Your task to perform on an android device: toggle pop-ups in chrome Image 0: 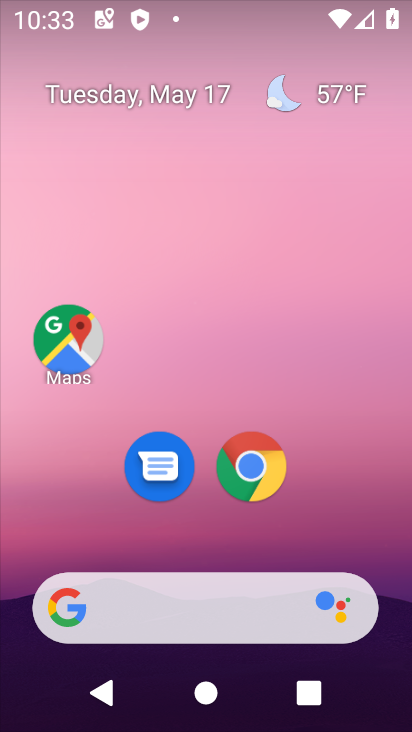
Step 0: press home button
Your task to perform on an android device: toggle pop-ups in chrome Image 1: 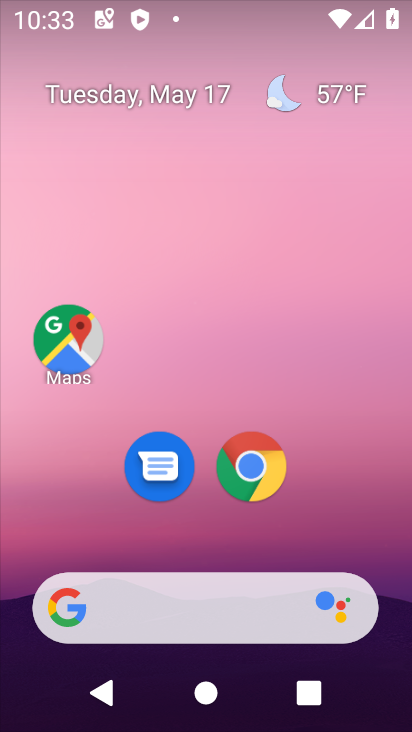
Step 1: drag from (258, 644) to (177, 197)
Your task to perform on an android device: toggle pop-ups in chrome Image 2: 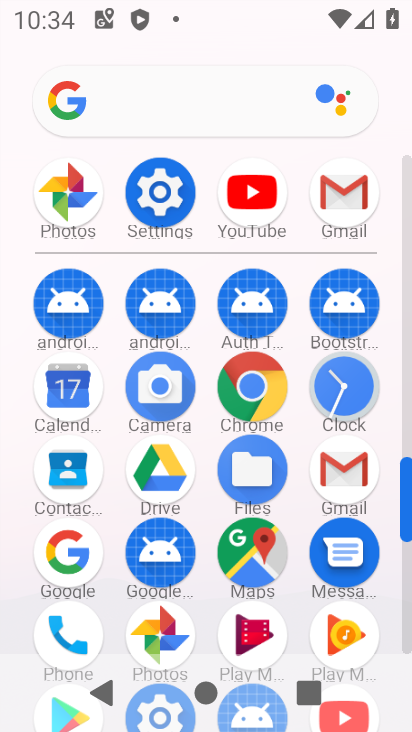
Step 2: click (266, 390)
Your task to perform on an android device: toggle pop-ups in chrome Image 3: 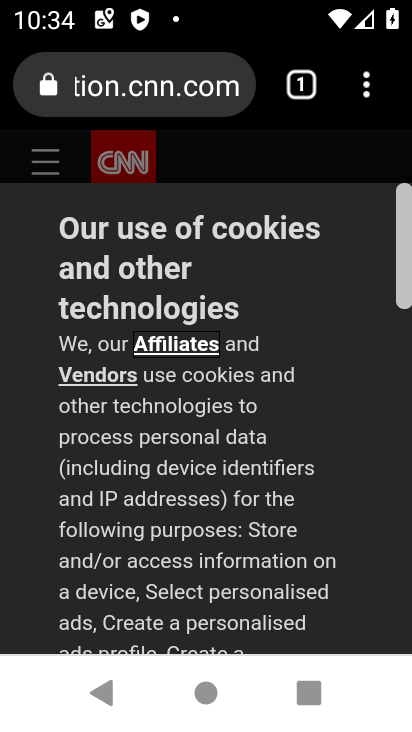
Step 3: click (363, 101)
Your task to perform on an android device: toggle pop-ups in chrome Image 4: 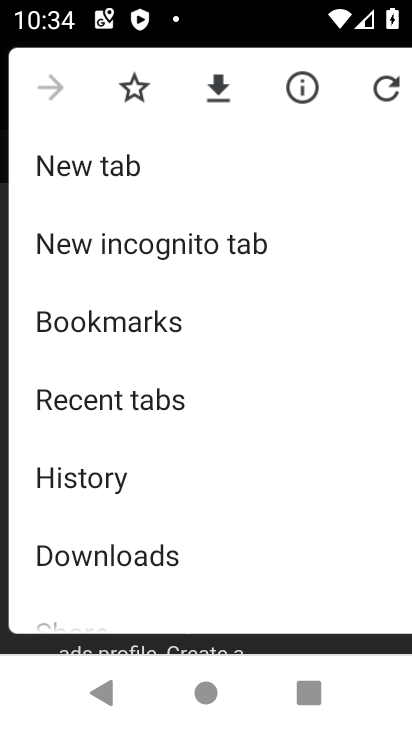
Step 4: drag from (182, 443) to (204, 238)
Your task to perform on an android device: toggle pop-ups in chrome Image 5: 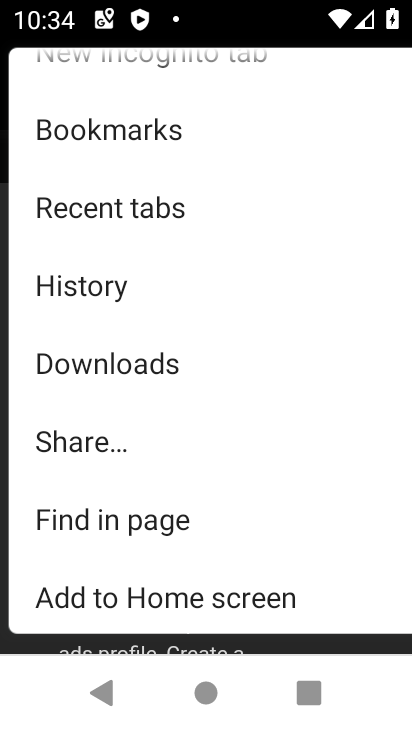
Step 5: drag from (141, 522) to (169, 245)
Your task to perform on an android device: toggle pop-ups in chrome Image 6: 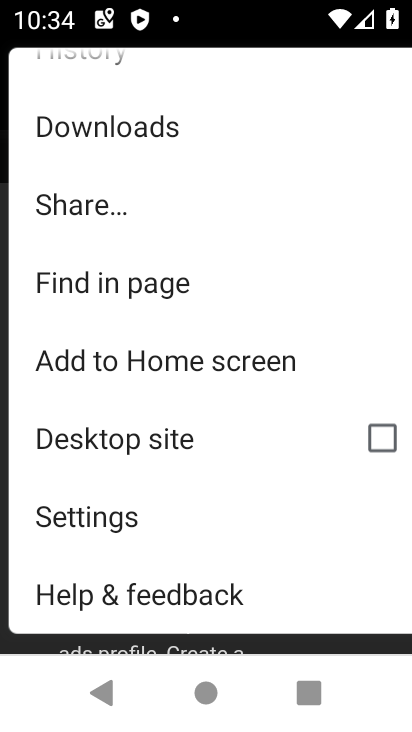
Step 6: click (139, 517)
Your task to perform on an android device: toggle pop-ups in chrome Image 7: 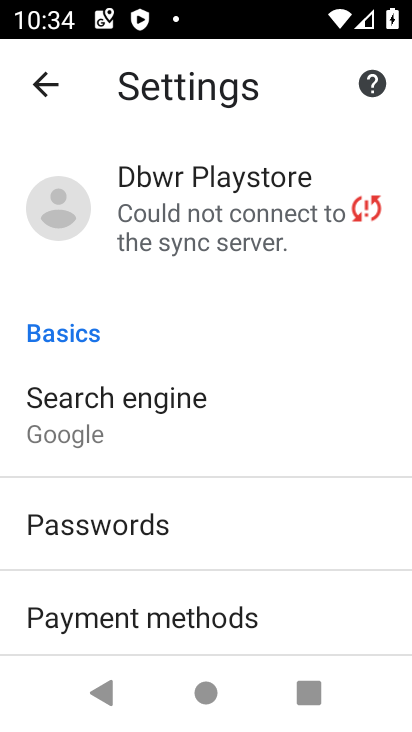
Step 7: drag from (149, 611) to (158, 399)
Your task to perform on an android device: toggle pop-ups in chrome Image 8: 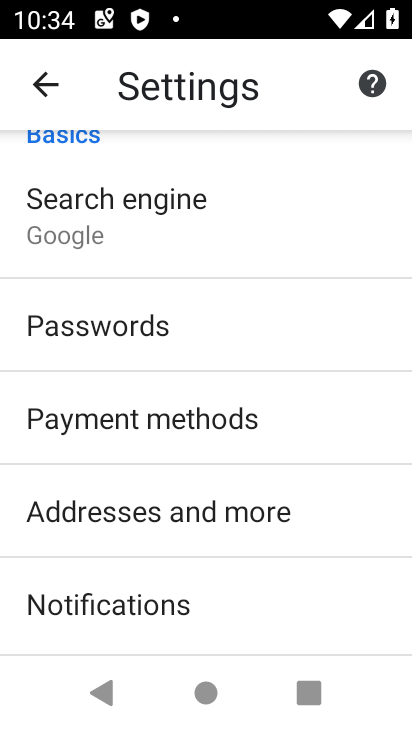
Step 8: drag from (169, 476) to (143, 300)
Your task to perform on an android device: toggle pop-ups in chrome Image 9: 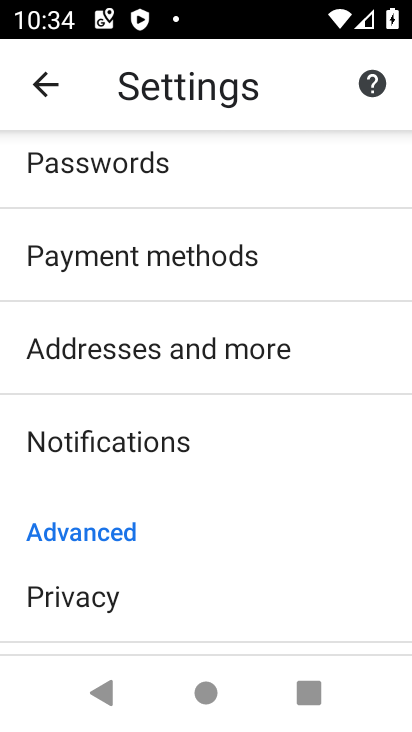
Step 9: drag from (144, 532) to (126, 338)
Your task to perform on an android device: toggle pop-ups in chrome Image 10: 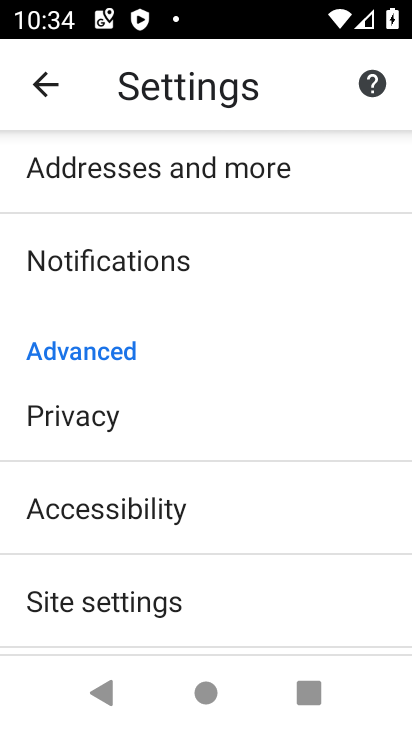
Step 10: click (104, 588)
Your task to perform on an android device: toggle pop-ups in chrome Image 11: 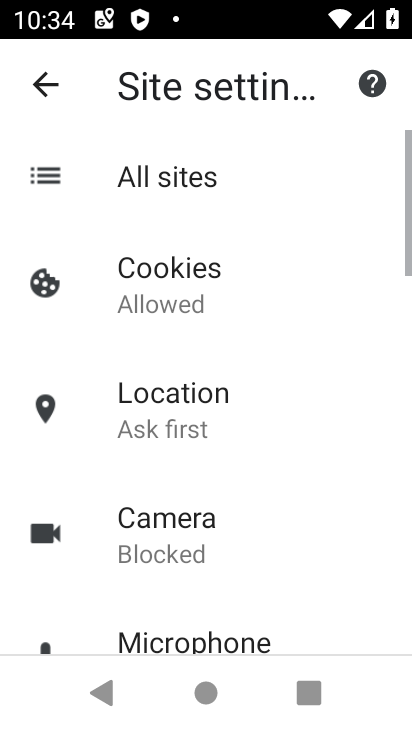
Step 11: drag from (190, 621) to (154, 359)
Your task to perform on an android device: toggle pop-ups in chrome Image 12: 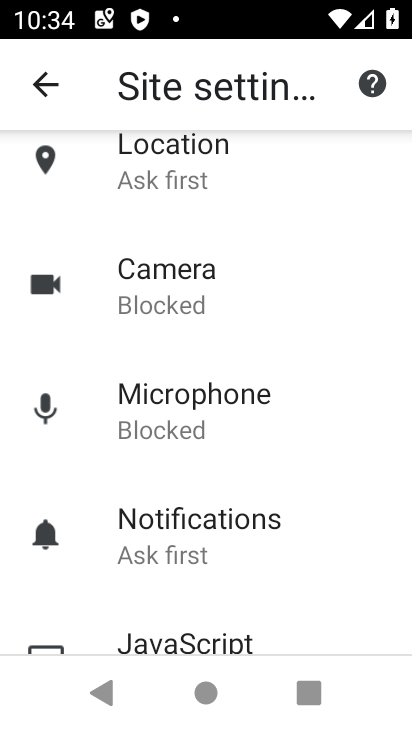
Step 12: drag from (194, 552) to (189, 310)
Your task to perform on an android device: toggle pop-ups in chrome Image 13: 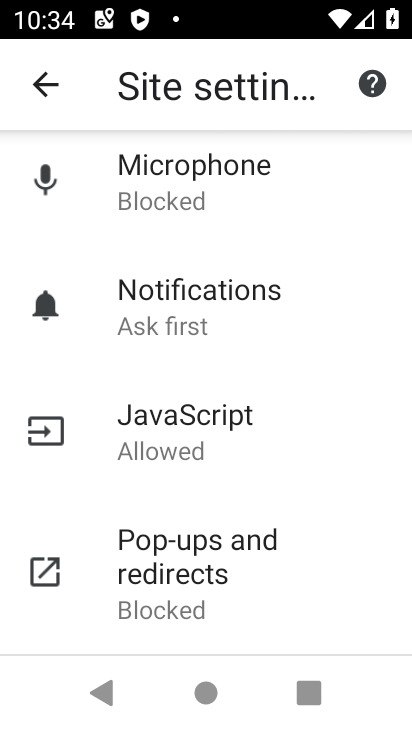
Step 13: click (162, 534)
Your task to perform on an android device: toggle pop-ups in chrome Image 14: 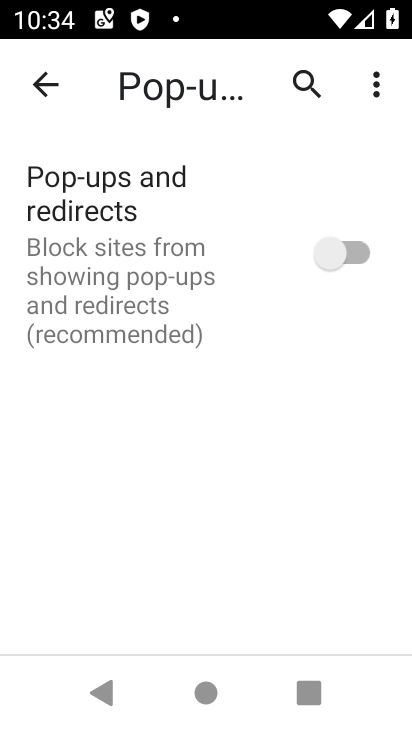
Step 14: task complete